Your task to perform on an android device: star an email in the gmail app Image 0: 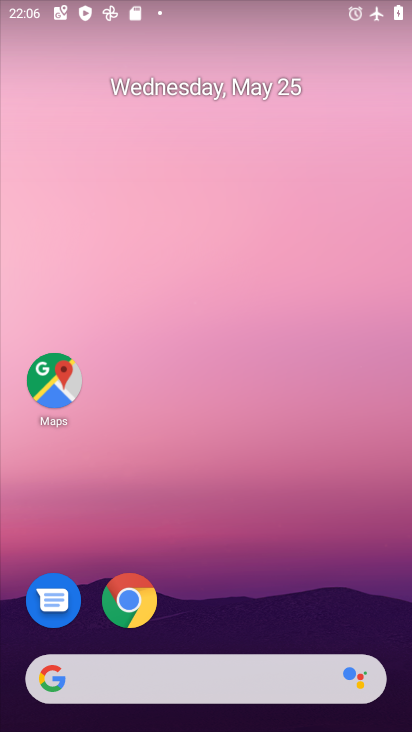
Step 0: drag from (335, 585) to (376, 190)
Your task to perform on an android device: star an email in the gmail app Image 1: 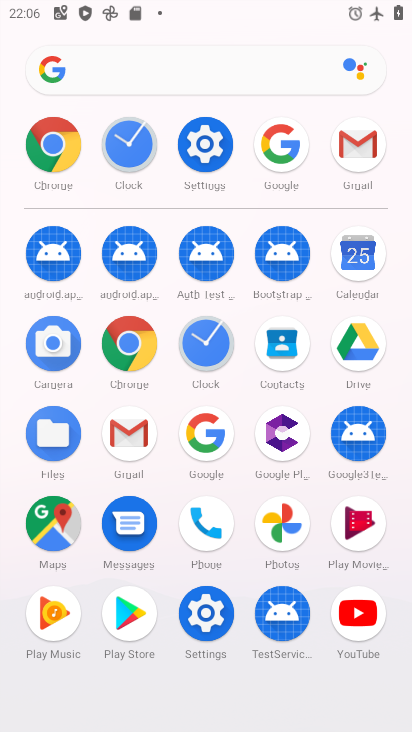
Step 1: click (117, 441)
Your task to perform on an android device: star an email in the gmail app Image 2: 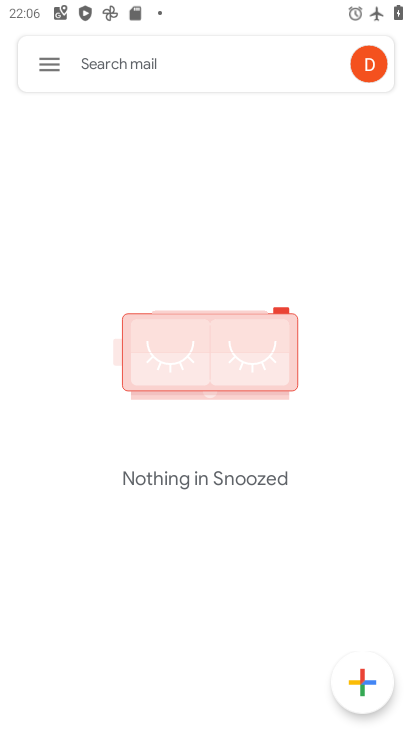
Step 2: click (54, 62)
Your task to perform on an android device: star an email in the gmail app Image 3: 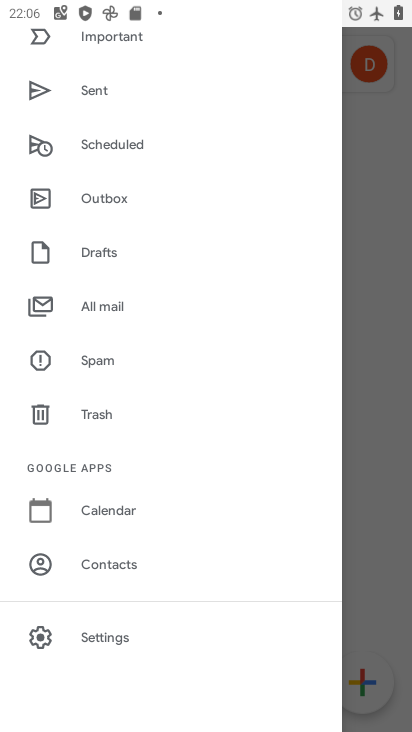
Step 3: click (108, 306)
Your task to perform on an android device: star an email in the gmail app Image 4: 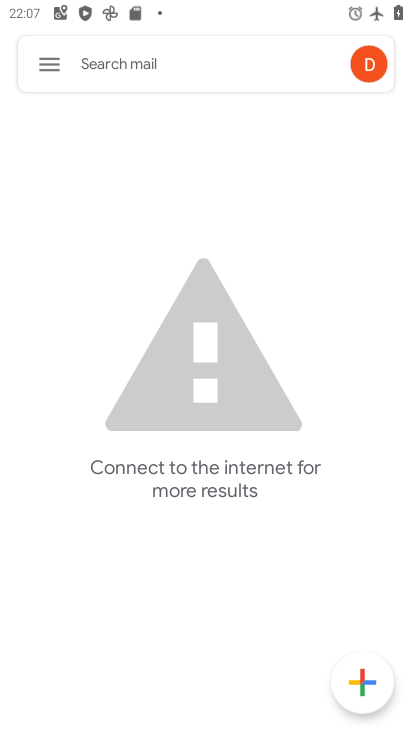
Step 4: task complete